Your task to perform on an android device: set default search engine in the chrome app Image 0: 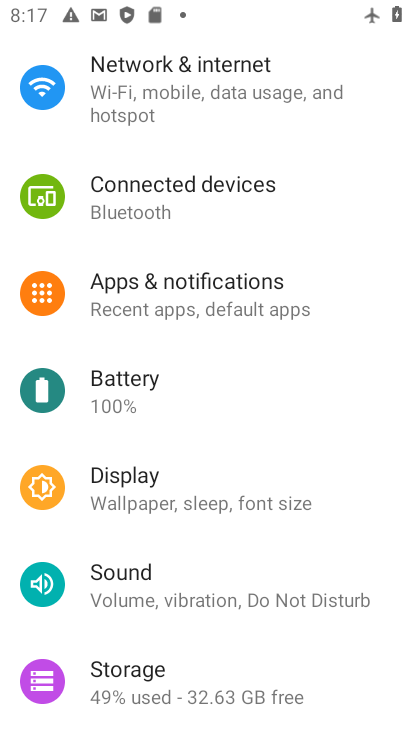
Step 0: click (57, 457)
Your task to perform on an android device: set default search engine in the chrome app Image 1: 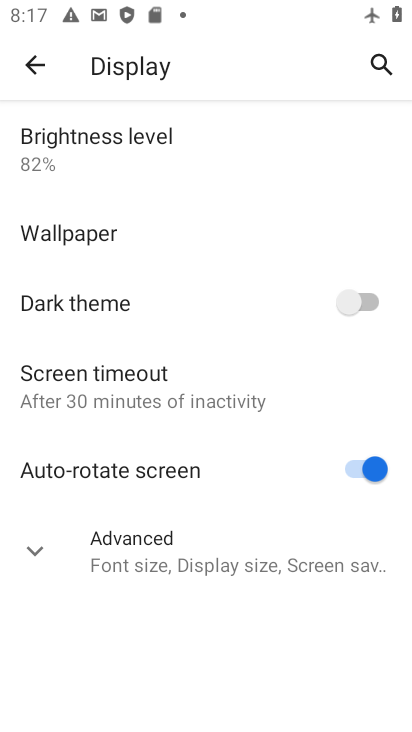
Step 1: press home button
Your task to perform on an android device: set default search engine in the chrome app Image 2: 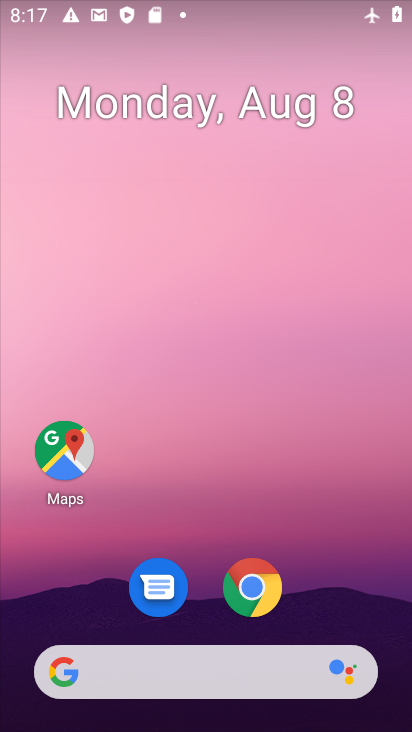
Step 2: drag from (233, 626) to (246, 320)
Your task to perform on an android device: set default search engine in the chrome app Image 3: 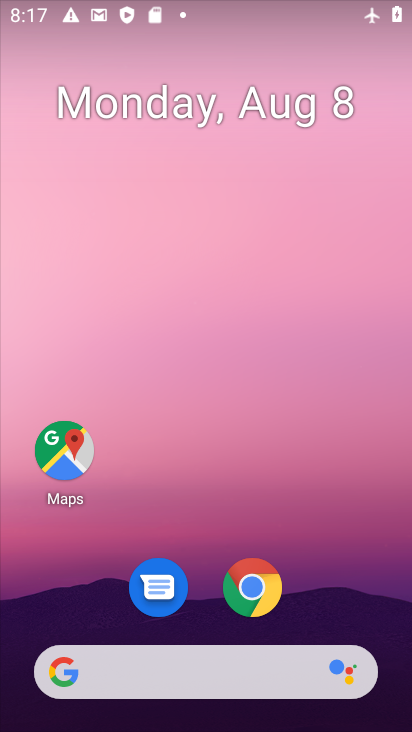
Step 3: click (236, 588)
Your task to perform on an android device: set default search engine in the chrome app Image 4: 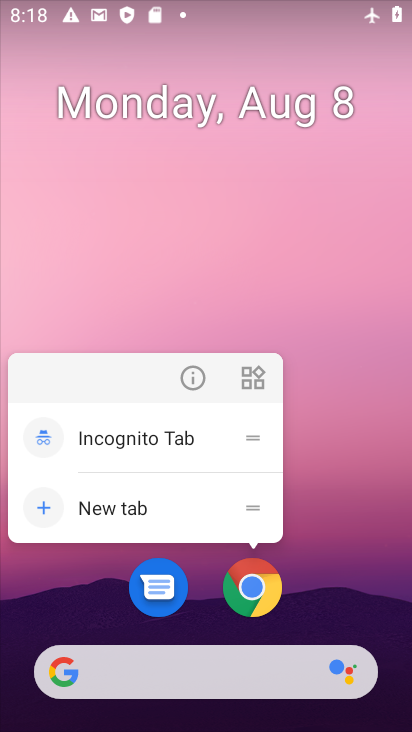
Step 4: click (267, 573)
Your task to perform on an android device: set default search engine in the chrome app Image 5: 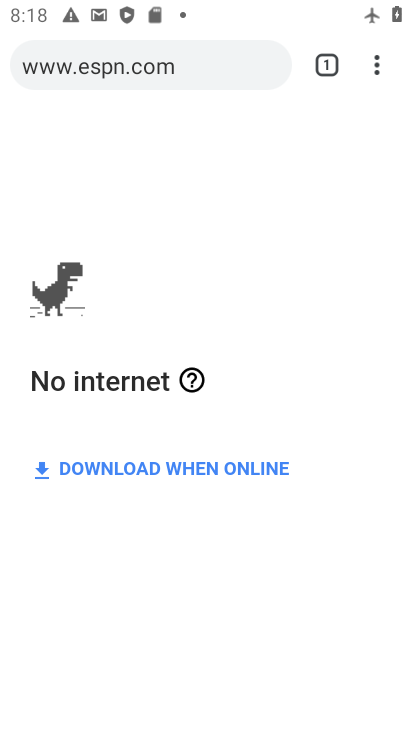
Step 5: click (377, 51)
Your task to perform on an android device: set default search engine in the chrome app Image 6: 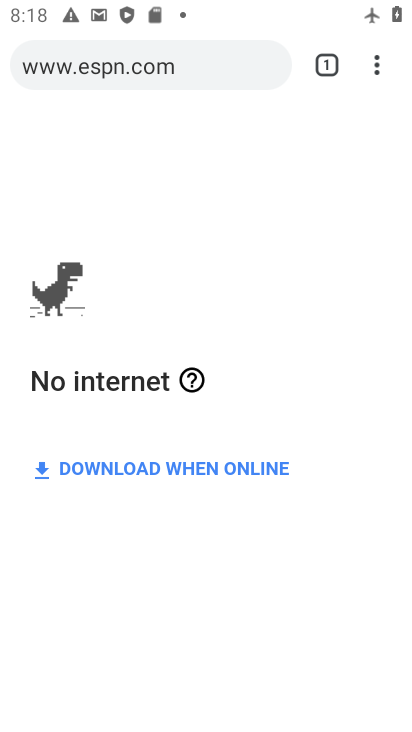
Step 6: click (379, 66)
Your task to perform on an android device: set default search engine in the chrome app Image 7: 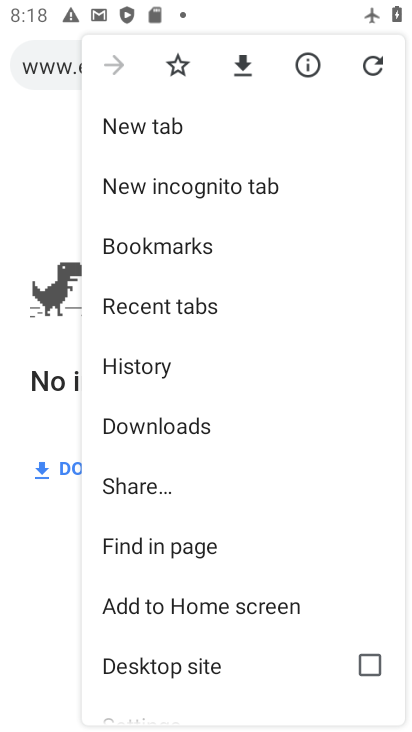
Step 7: drag from (174, 642) to (168, 195)
Your task to perform on an android device: set default search engine in the chrome app Image 8: 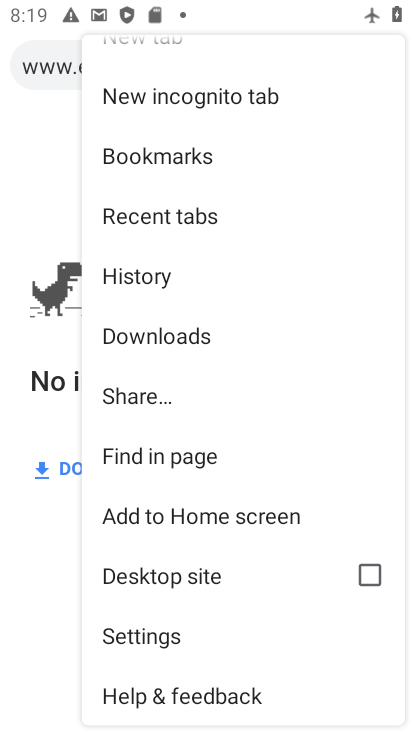
Step 8: click (134, 629)
Your task to perform on an android device: set default search engine in the chrome app Image 9: 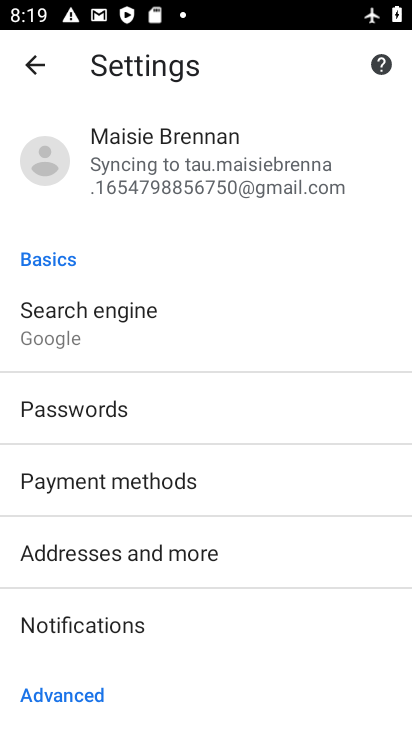
Step 9: click (91, 320)
Your task to perform on an android device: set default search engine in the chrome app Image 10: 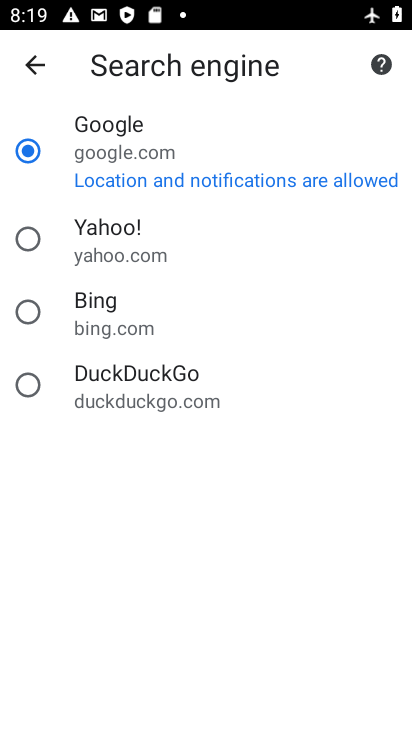
Step 10: task complete